Your task to perform on an android device: change keyboard looks Image 0: 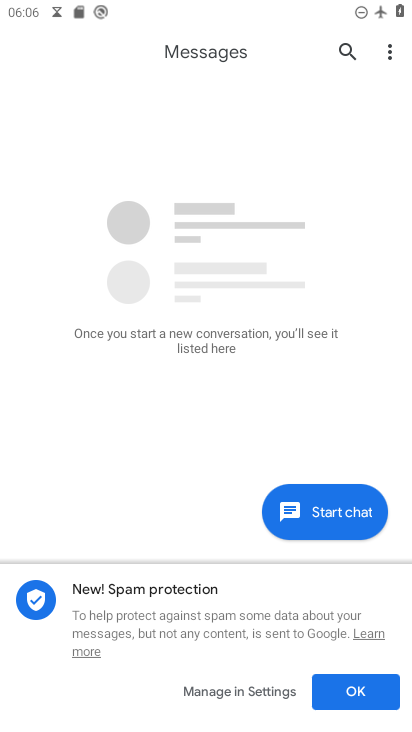
Step 0: press home button
Your task to perform on an android device: change keyboard looks Image 1: 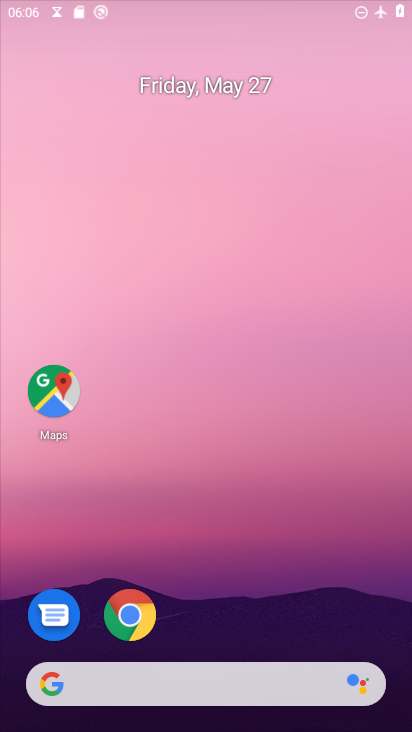
Step 1: drag from (310, 609) to (212, 11)
Your task to perform on an android device: change keyboard looks Image 2: 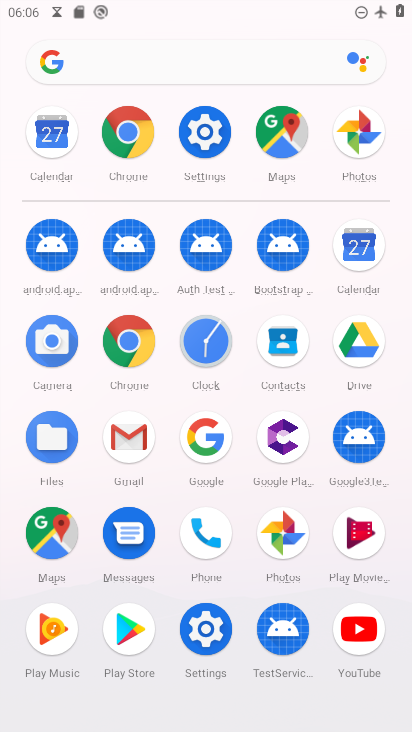
Step 2: click (215, 641)
Your task to perform on an android device: change keyboard looks Image 3: 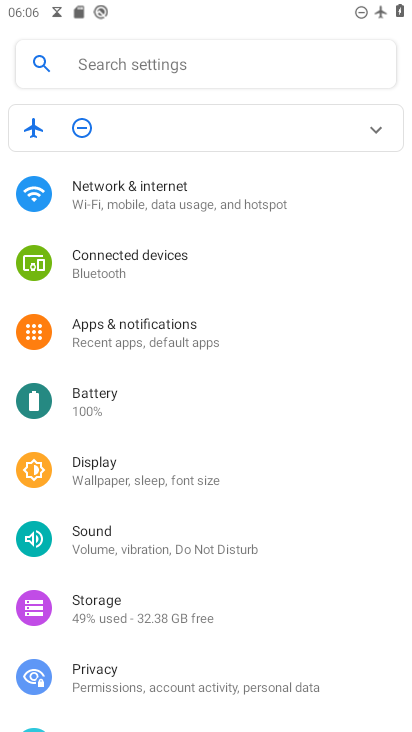
Step 3: drag from (242, 643) to (221, 189)
Your task to perform on an android device: change keyboard looks Image 4: 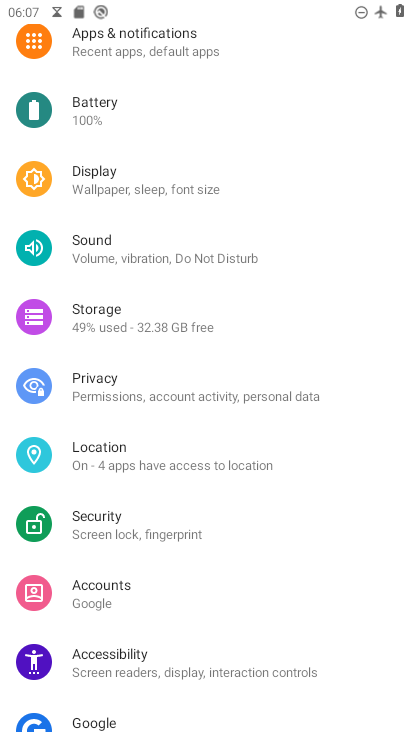
Step 4: drag from (175, 677) to (163, 14)
Your task to perform on an android device: change keyboard looks Image 5: 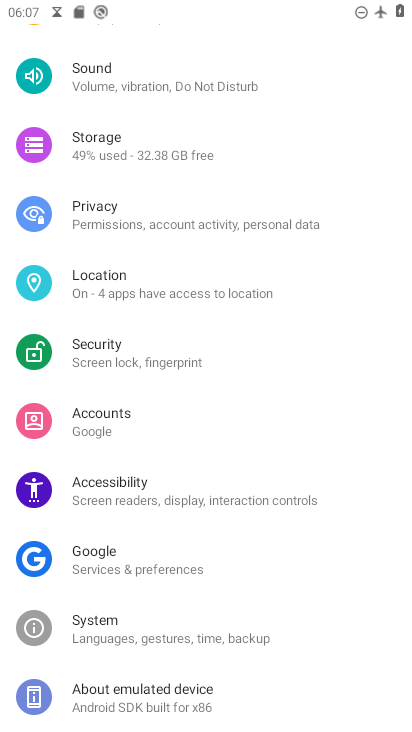
Step 5: click (156, 634)
Your task to perform on an android device: change keyboard looks Image 6: 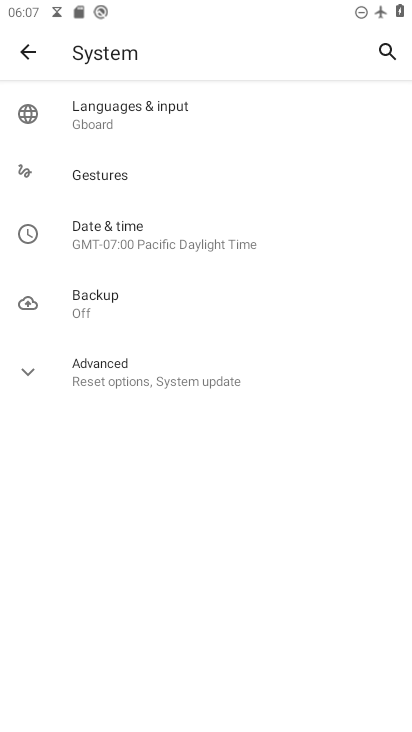
Step 6: click (182, 122)
Your task to perform on an android device: change keyboard looks Image 7: 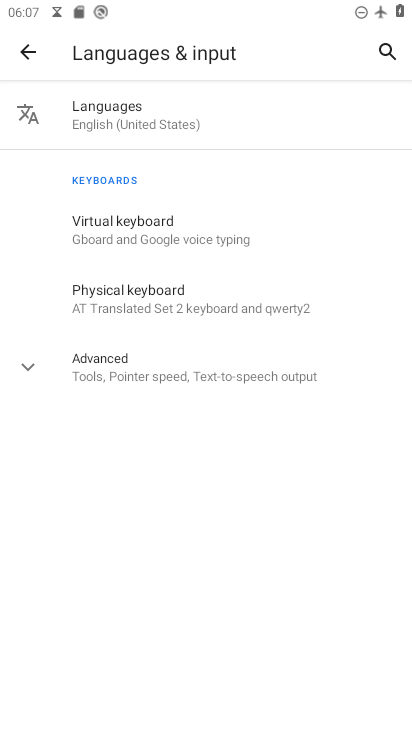
Step 7: click (142, 205)
Your task to perform on an android device: change keyboard looks Image 8: 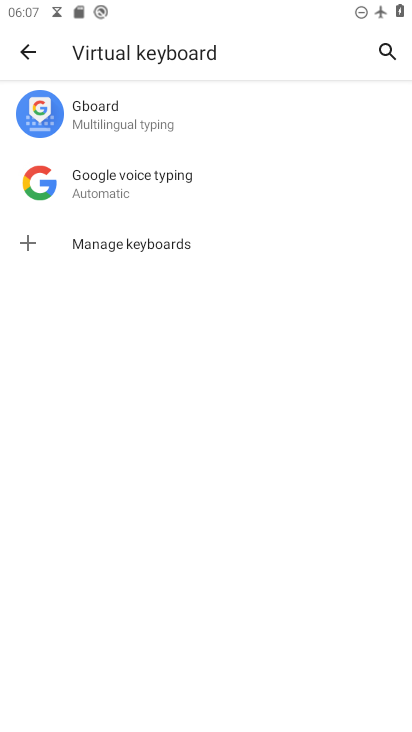
Step 8: click (170, 113)
Your task to perform on an android device: change keyboard looks Image 9: 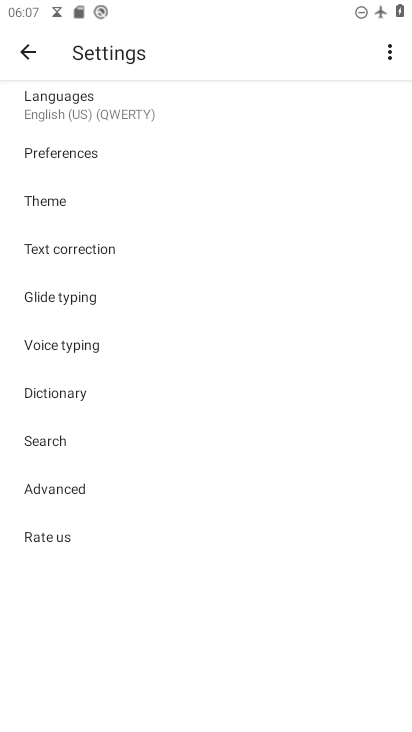
Step 9: click (109, 200)
Your task to perform on an android device: change keyboard looks Image 10: 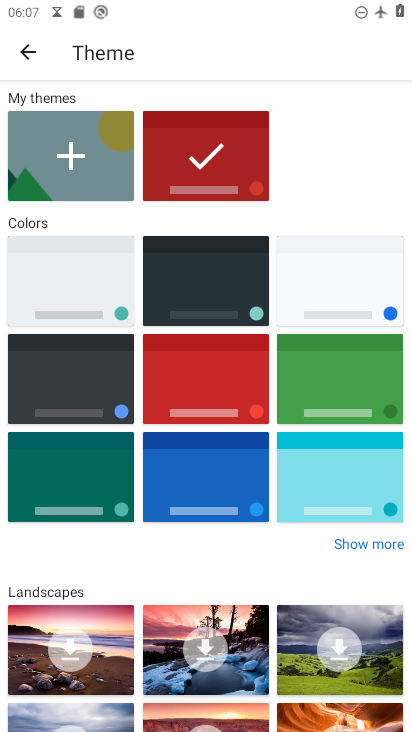
Step 10: click (225, 400)
Your task to perform on an android device: change keyboard looks Image 11: 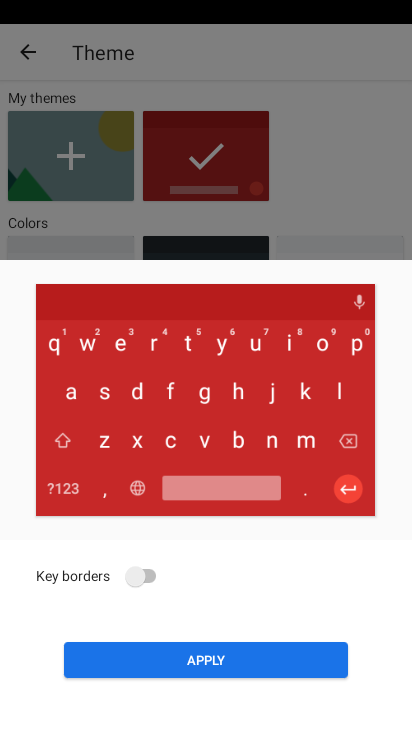
Step 11: click (258, 666)
Your task to perform on an android device: change keyboard looks Image 12: 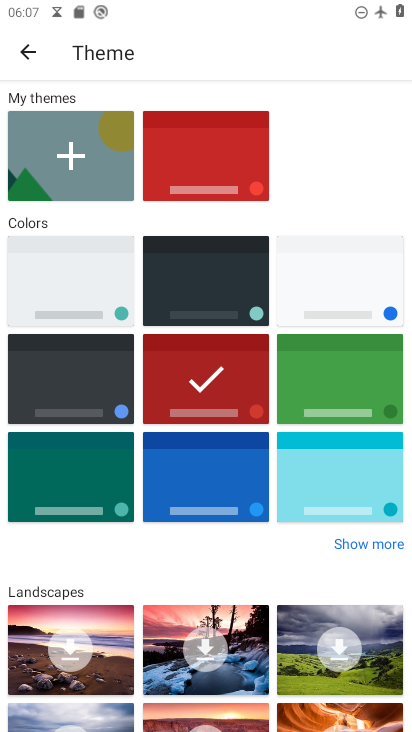
Step 12: task complete